Your task to perform on an android device: turn on improve location accuracy Image 0: 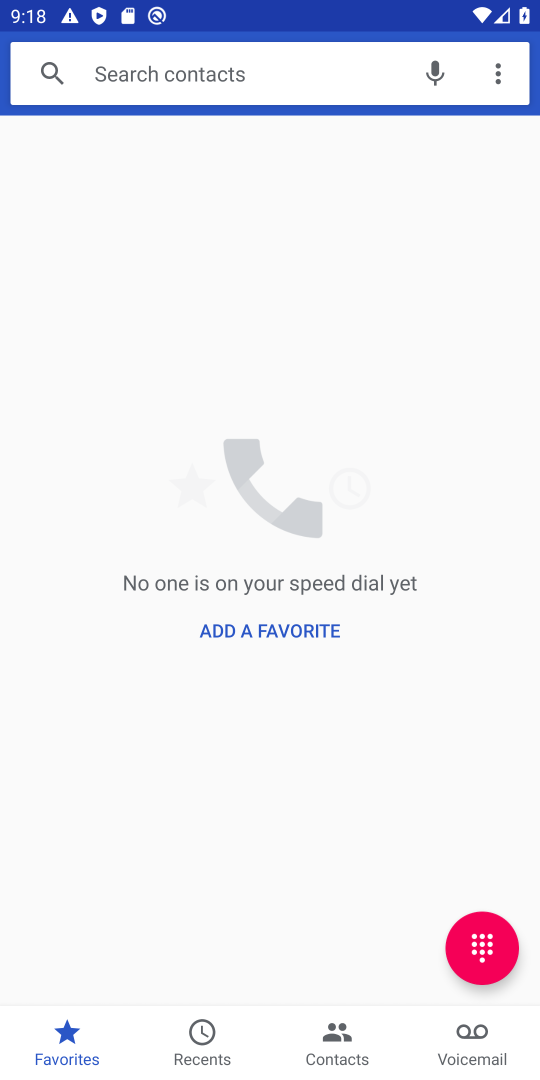
Step 0: press home button
Your task to perform on an android device: turn on improve location accuracy Image 1: 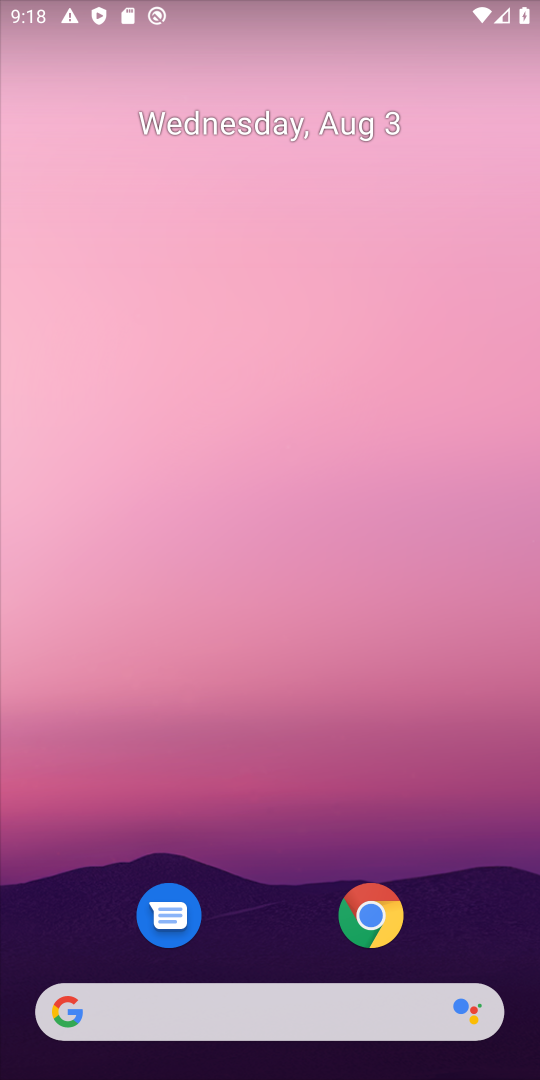
Step 1: drag from (245, 962) to (310, 468)
Your task to perform on an android device: turn on improve location accuracy Image 2: 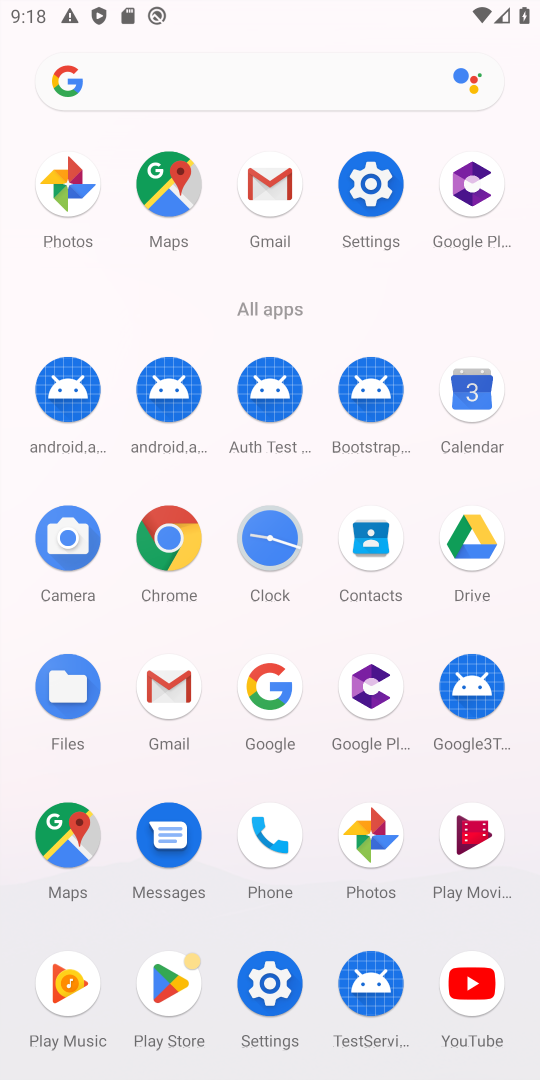
Step 2: click (369, 186)
Your task to perform on an android device: turn on improve location accuracy Image 3: 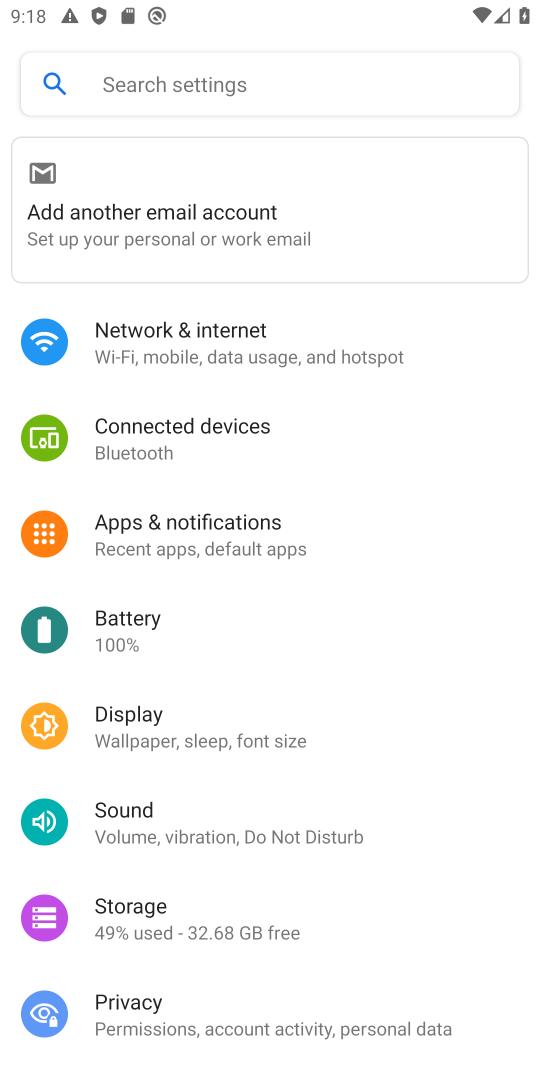
Step 3: click (148, 942)
Your task to perform on an android device: turn on improve location accuracy Image 4: 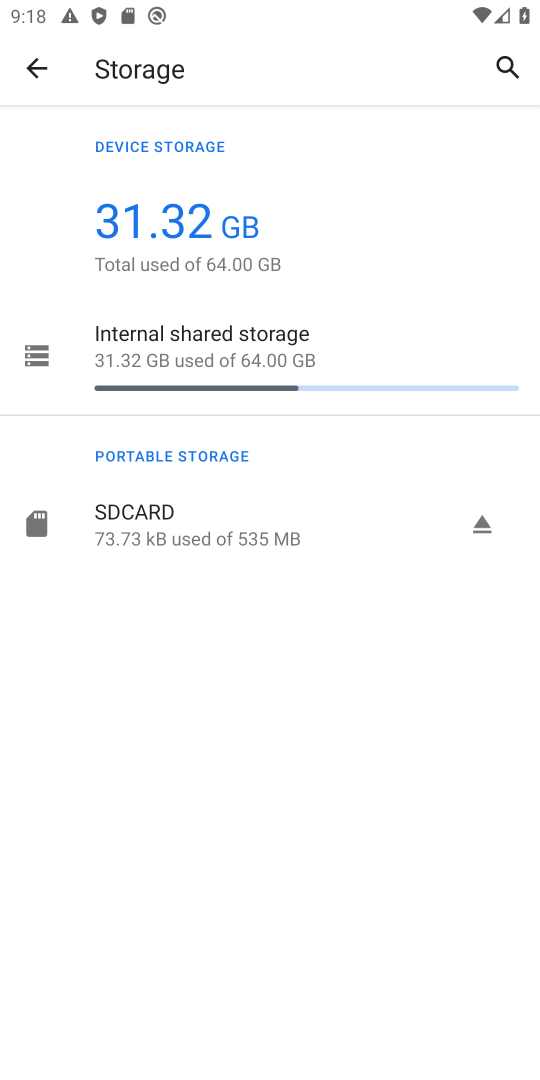
Step 4: click (28, 67)
Your task to perform on an android device: turn on improve location accuracy Image 5: 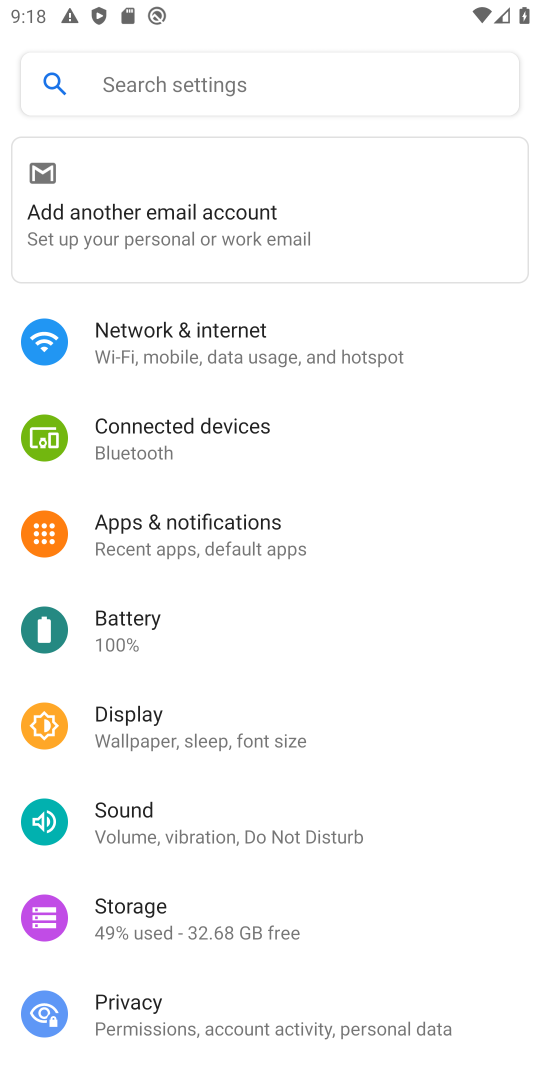
Step 5: drag from (157, 969) to (258, 431)
Your task to perform on an android device: turn on improve location accuracy Image 6: 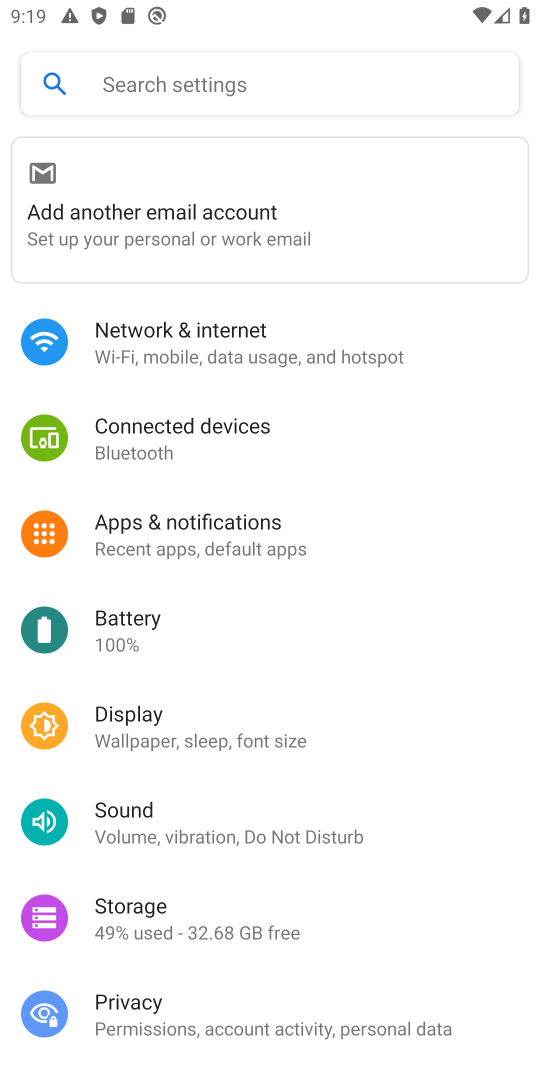
Step 6: drag from (220, 1065) to (251, 471)
Your task to perform on an android device: turn on improve location accuracy Image 7: 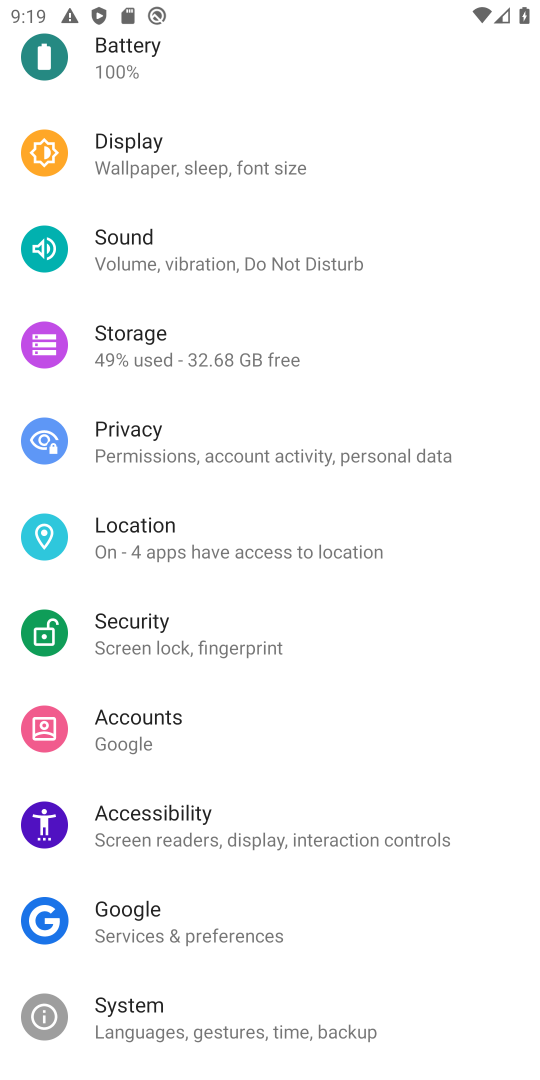
Step 7: click (142, 538)
Your task to perform on an android device: turn on improve location accuracy Image 8: 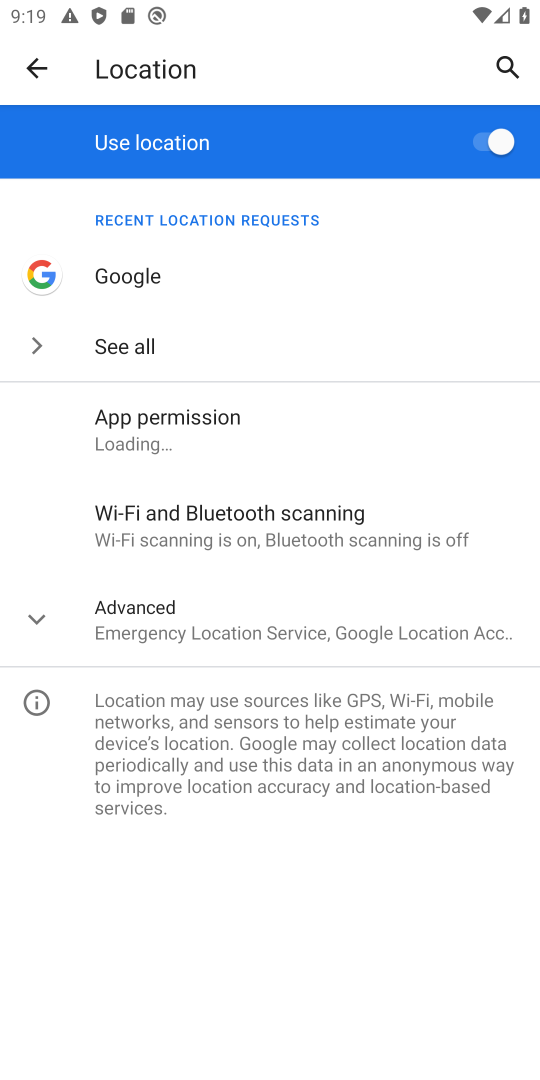
Step 8: click (155, 636)
Your task to perform on an android device: turn on improve location accuracy Image 9: 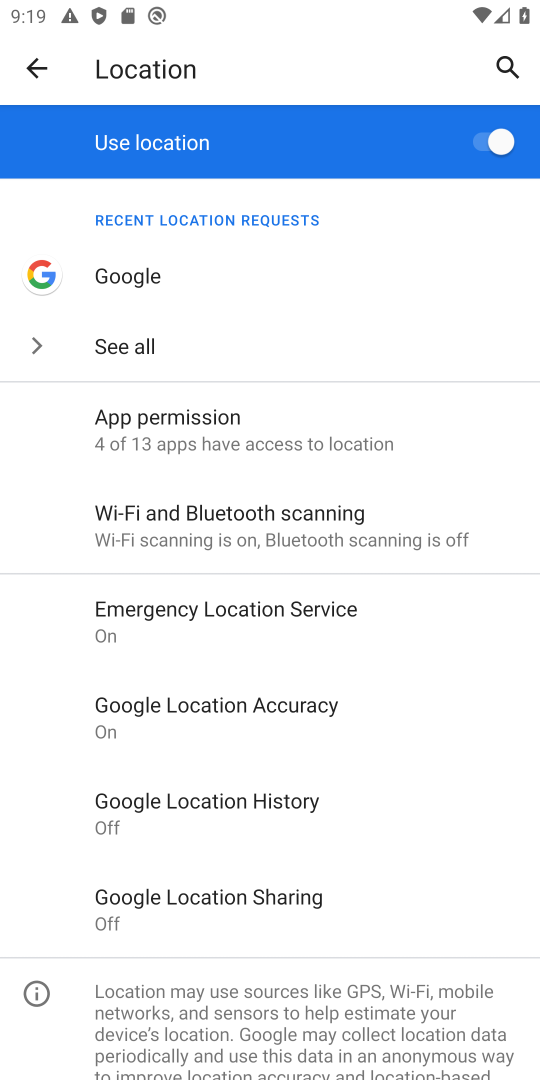
Step 9: click (241, 698)
Your task to perform on an android device: turn on improve location accuracy Image 10: 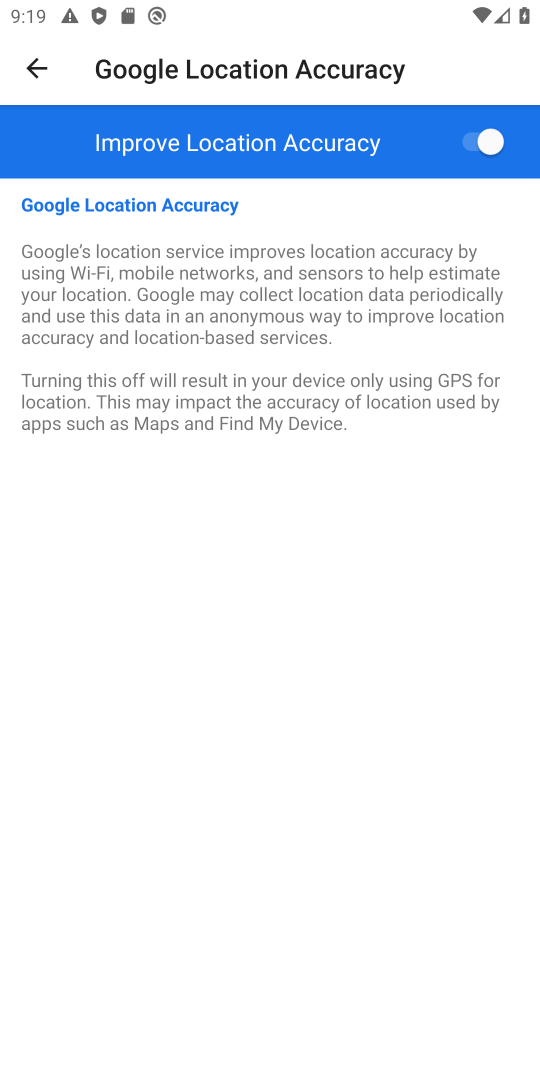
Step 10: task complete